Your task to perform on an android device: turn smart compose on in the gmail app Image 0: 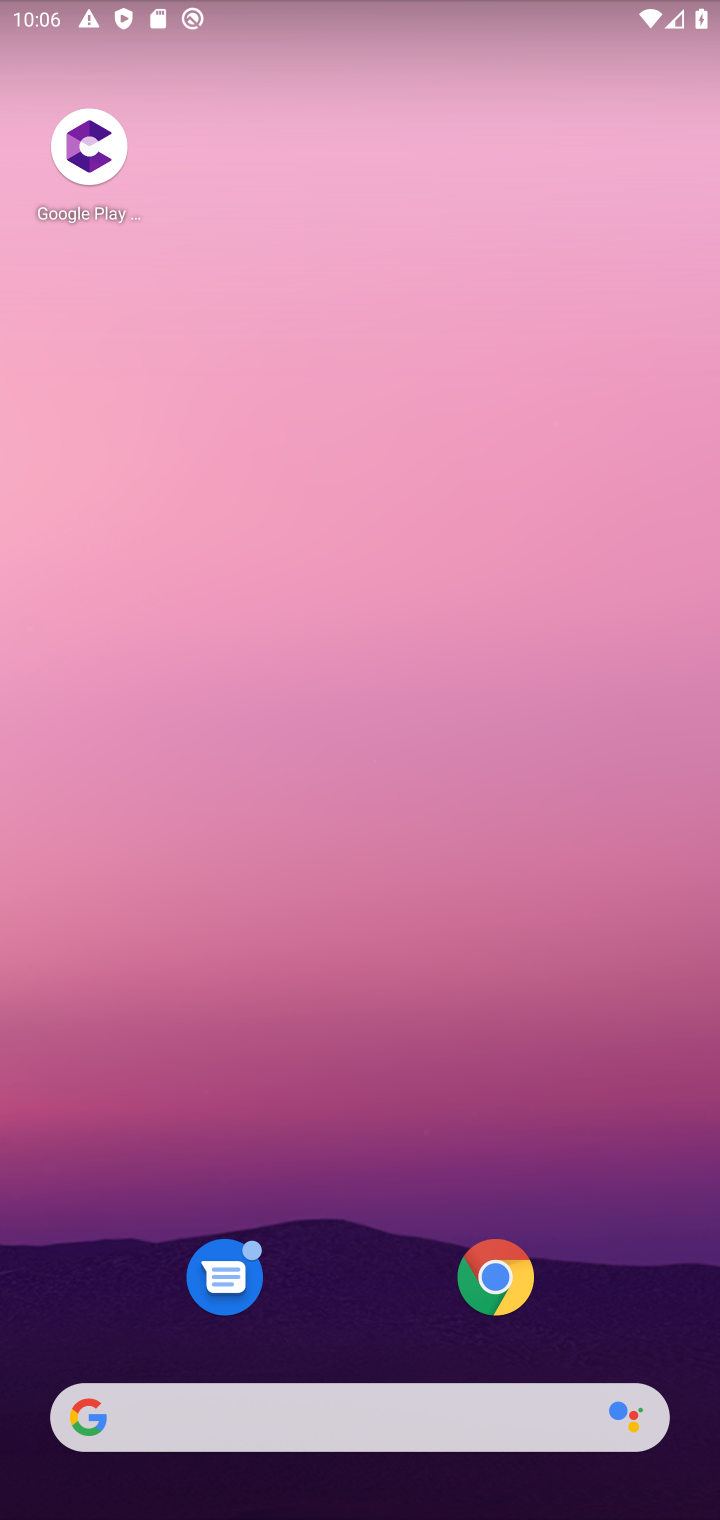
Step 0: drag from (406, 1050) to (435, 338)
Your task to perform on an android device: turn smart compose on in the gmail app Image 1: 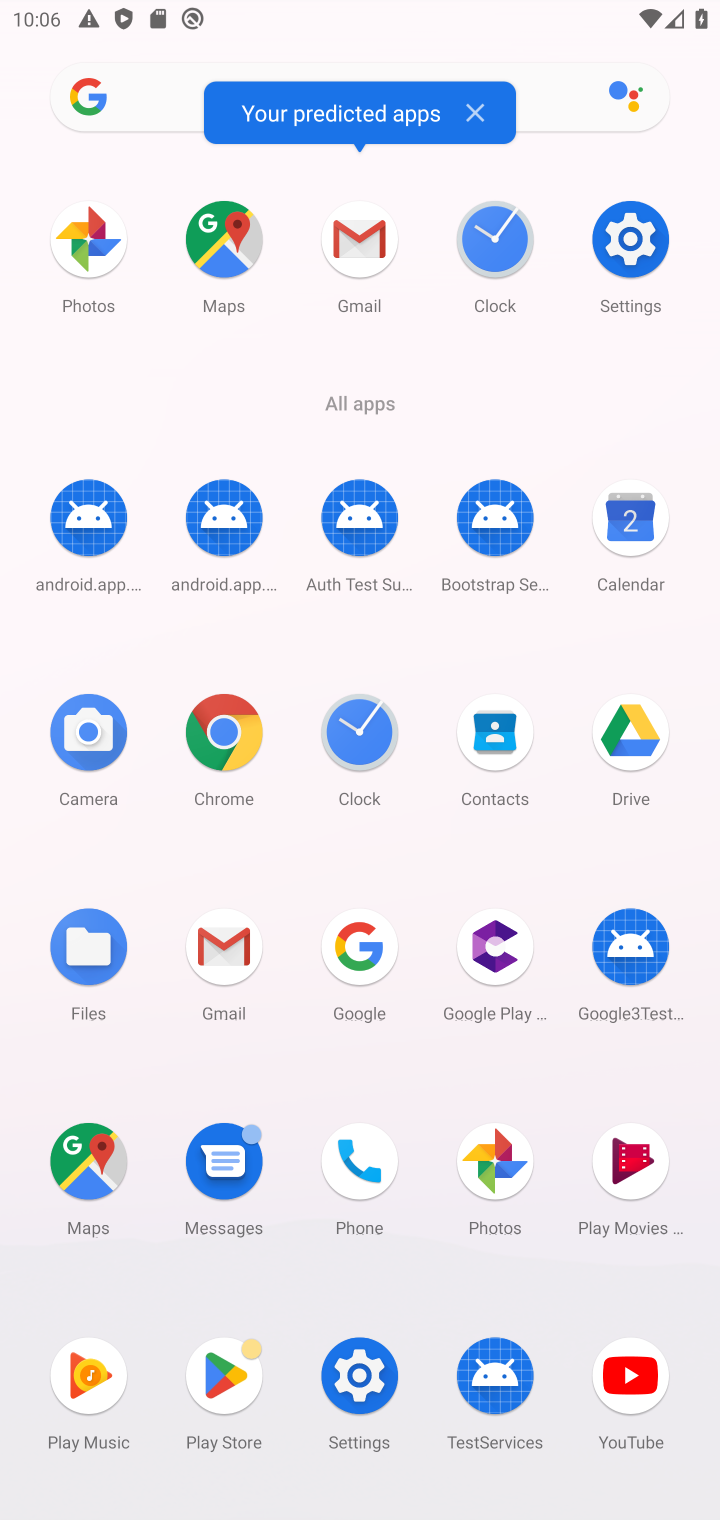
Step 1: click (382, 226)
Your task to perform on an android device: turn smart compose on in the gmail app Image 2: 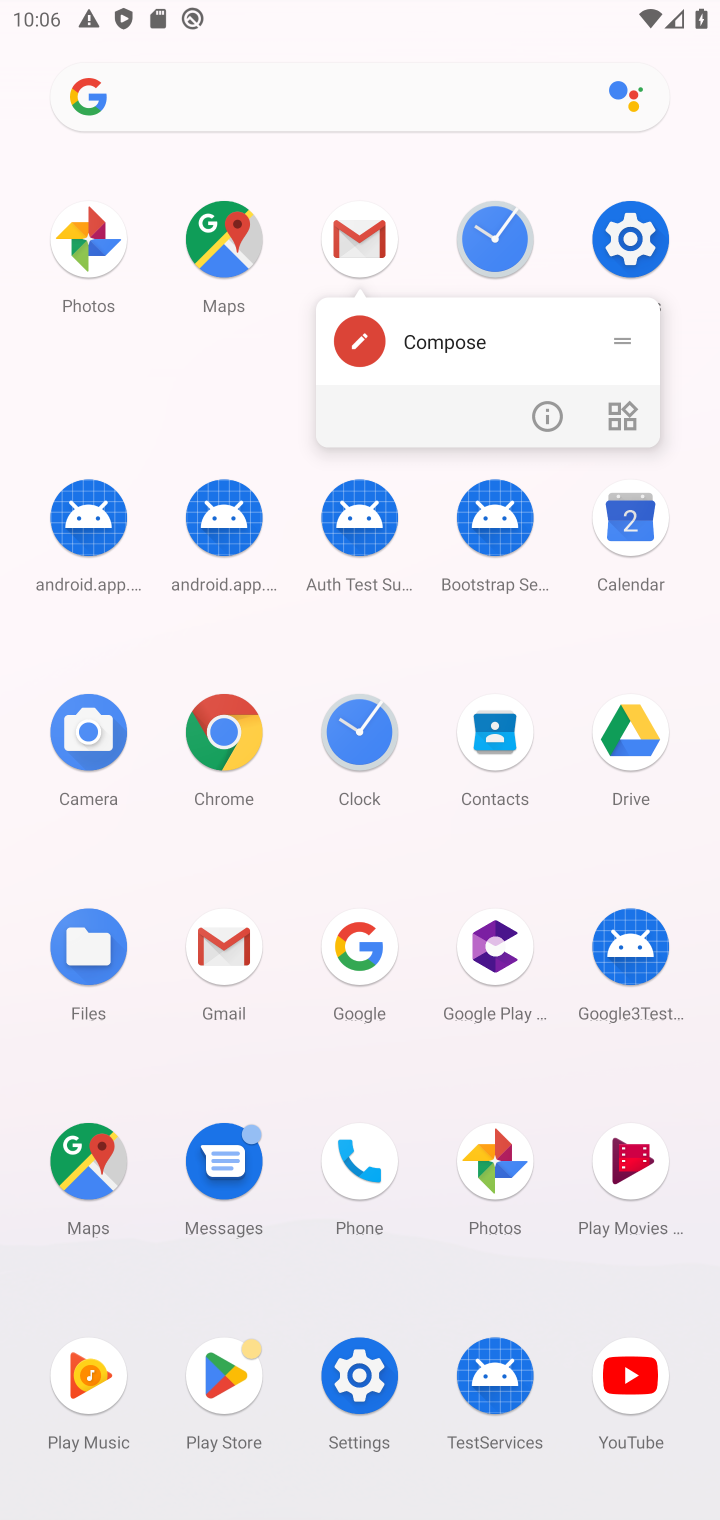
Step 2: click (364, 257)
Your task to perform on an android device: turn smart compose on in the gmail app Image 3: 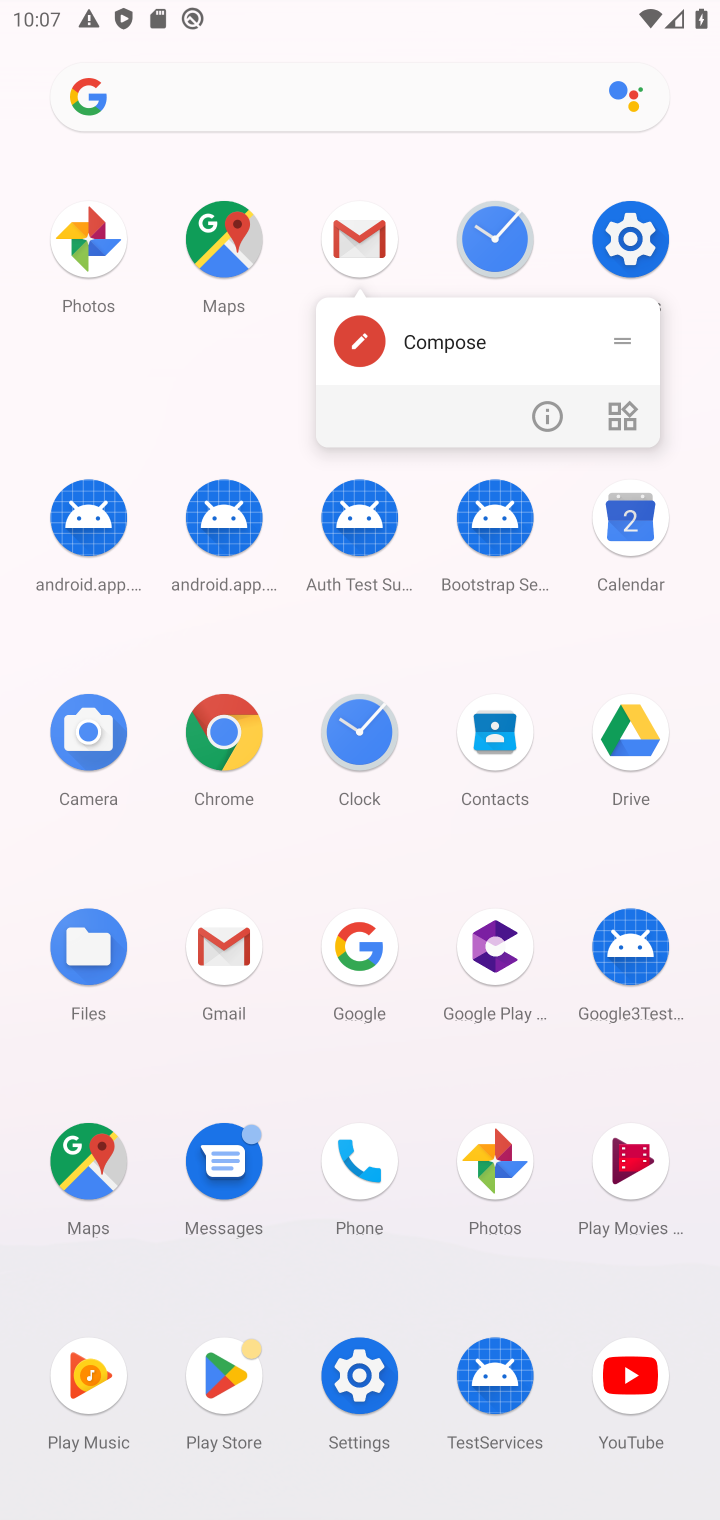
Step 3: click (364, 257)
Your task to perform on an android device: turn smart compose on in the gmail app Image 4: 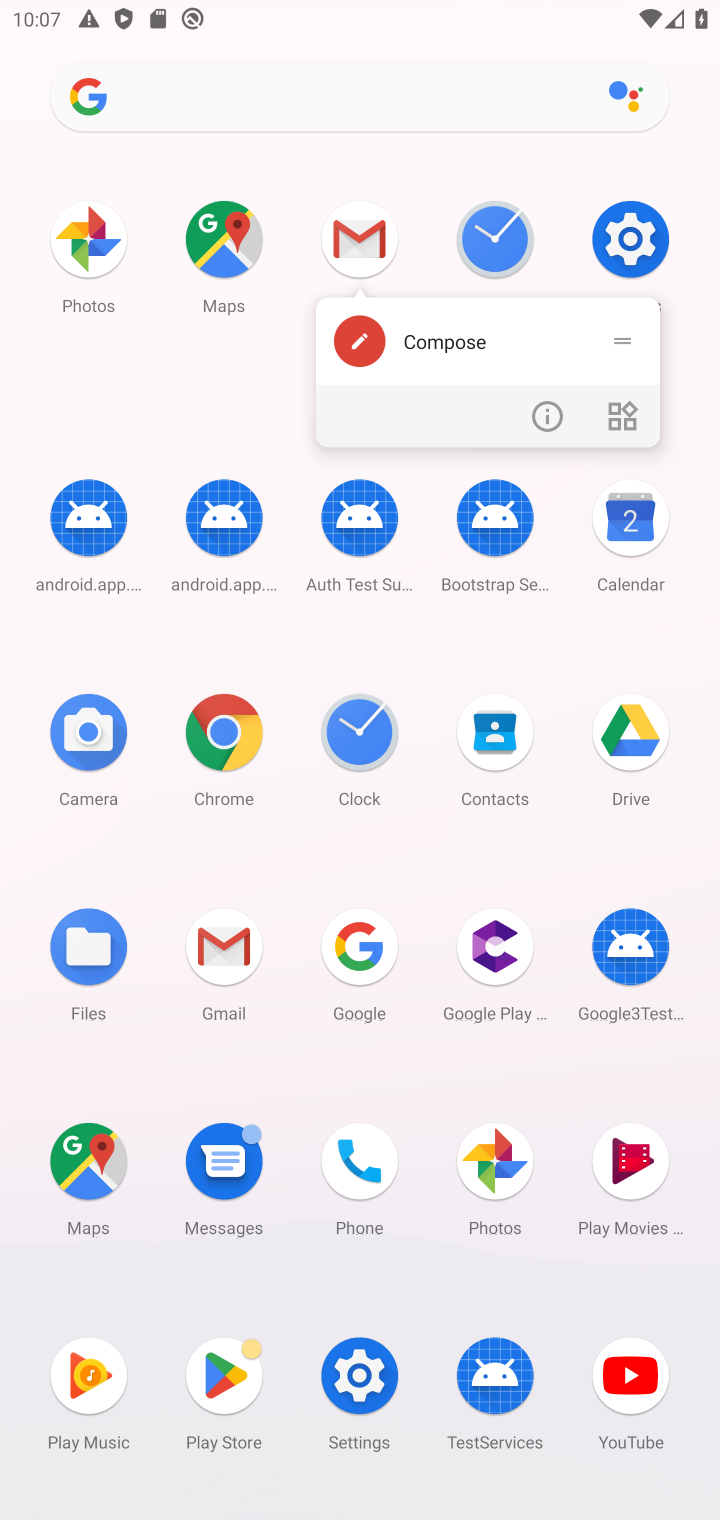
Step 4: click (235, 925)
Your task to perform on an android device: turn smart compose on in the gmail app Image 5: 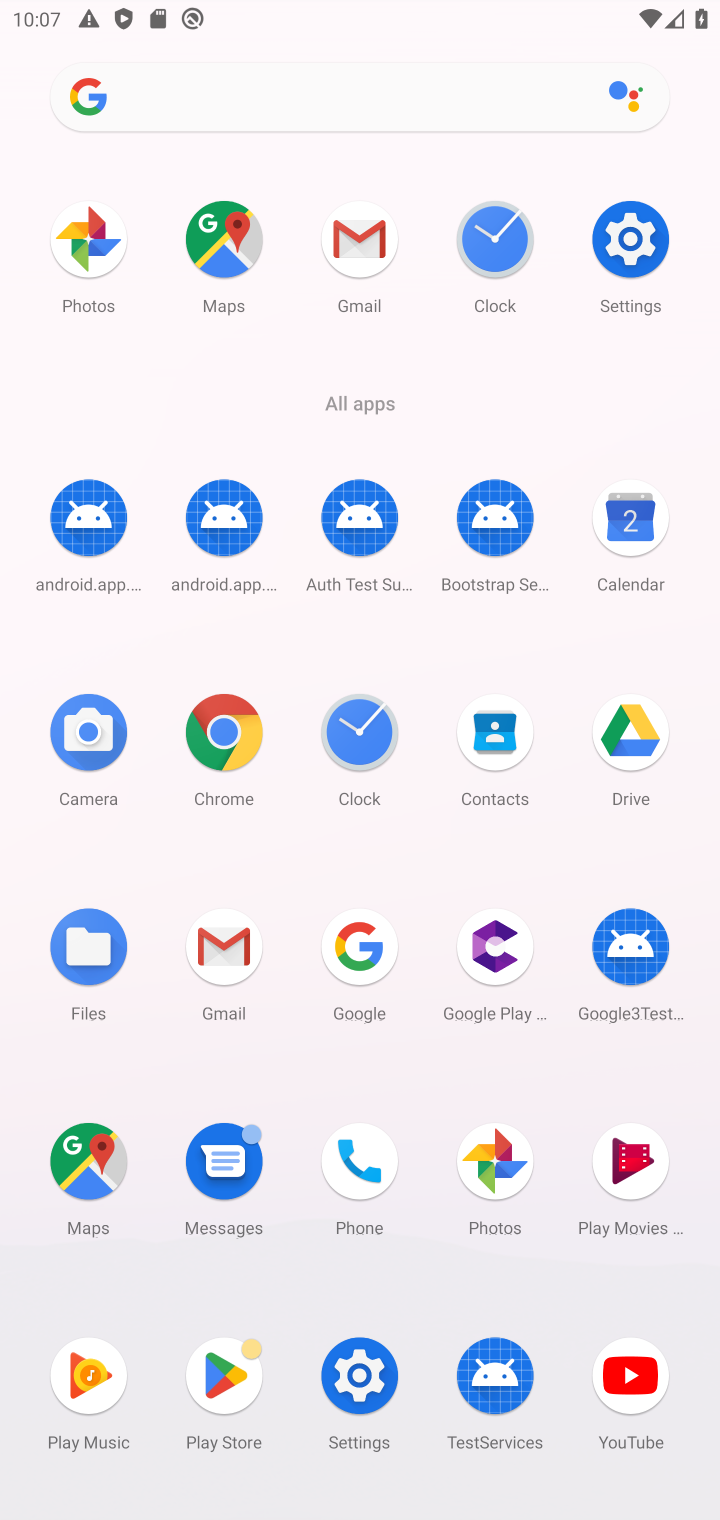
Step 5: click (231, 951)
Your task to perform on an android device: turn smart compose on in the gmail app Image 6: 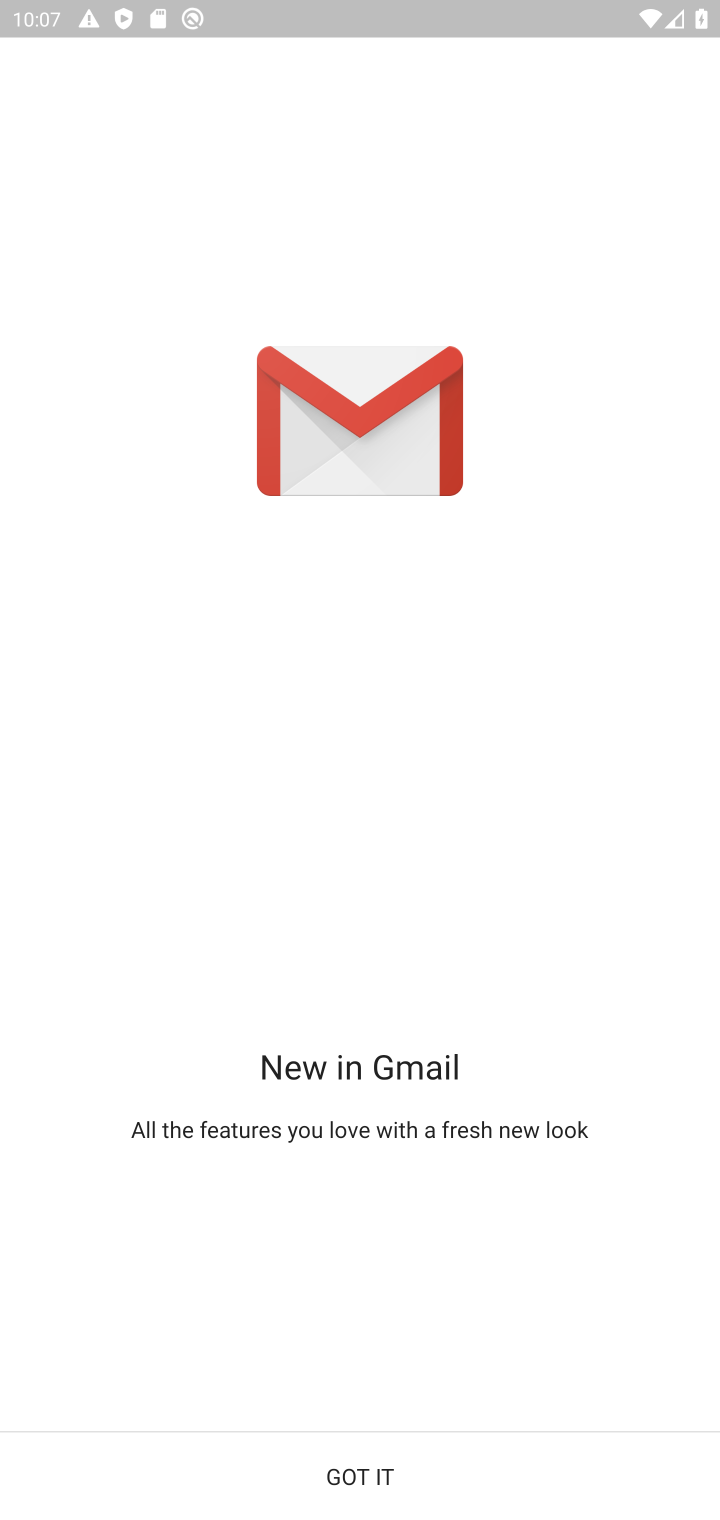
Step 6: click (350, 1480)
Your task to perform on an android device: turn smart compose on in the gmail app Image 7: 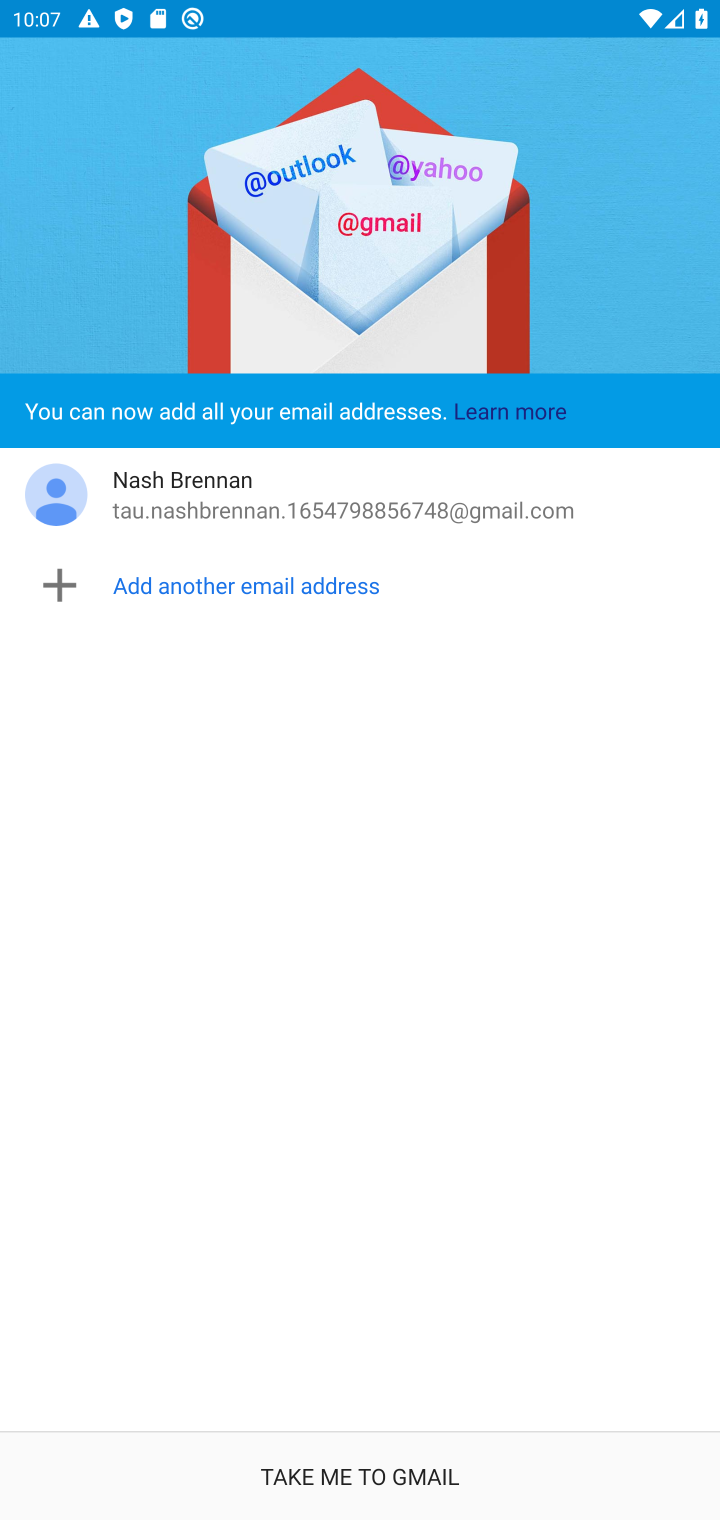
Step 7: click (363, 1482)
Your task to perform on an android device: turn smart compose on in the gmail app Image 8: 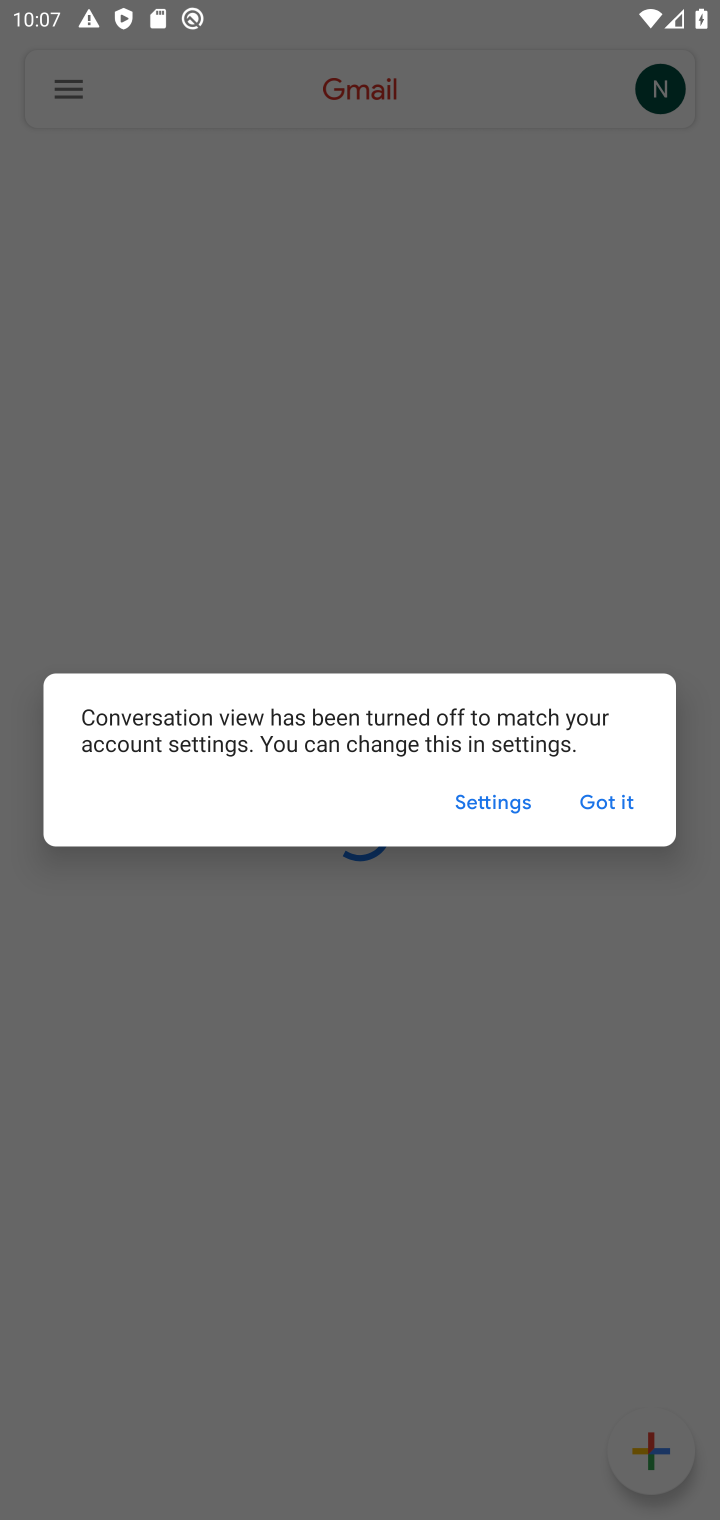
Step 8: click (638, 788)
Your task to perform on an android device: turn smart compose on in the gmail app Image 9: 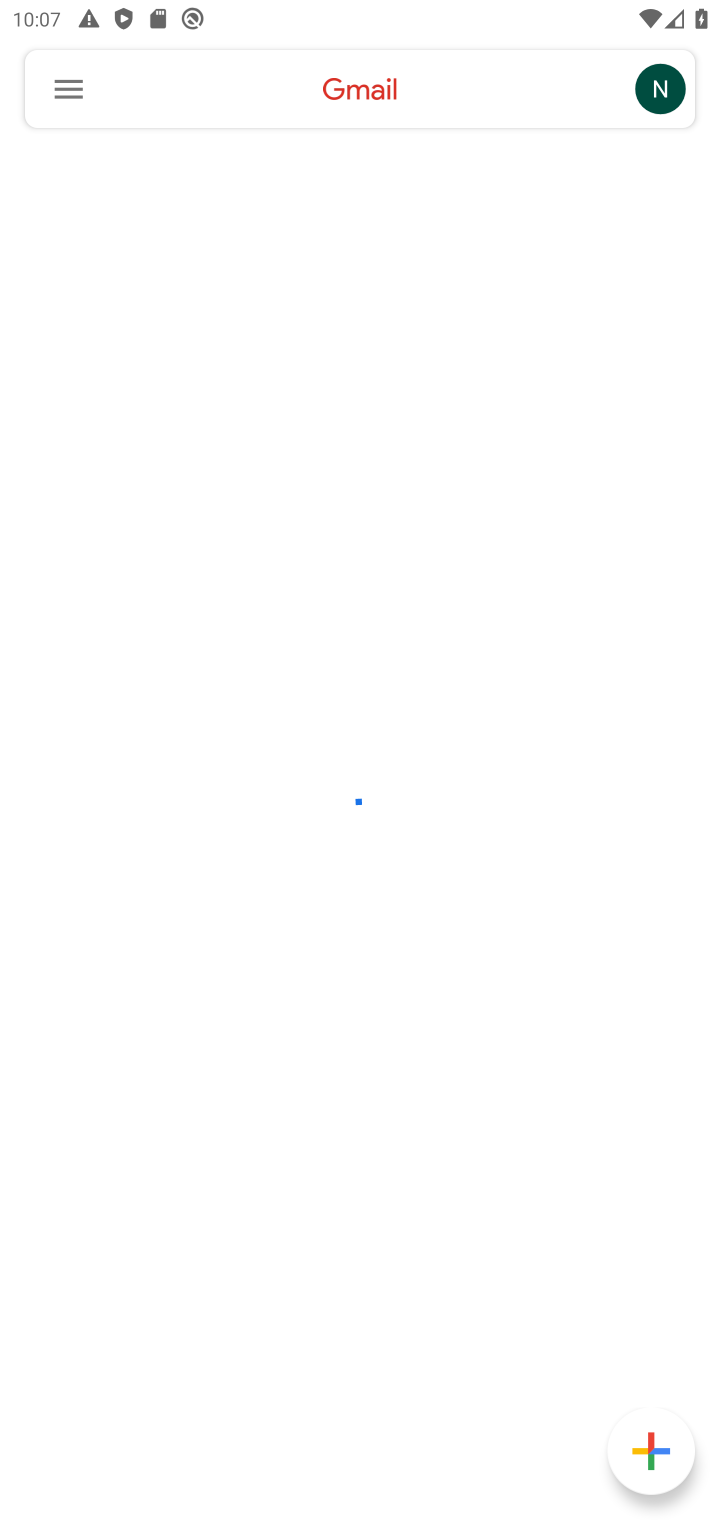
Step 9: click (72, 72)
Your task to perform on an android device: turn smart compose on in the gmail app Image 10: 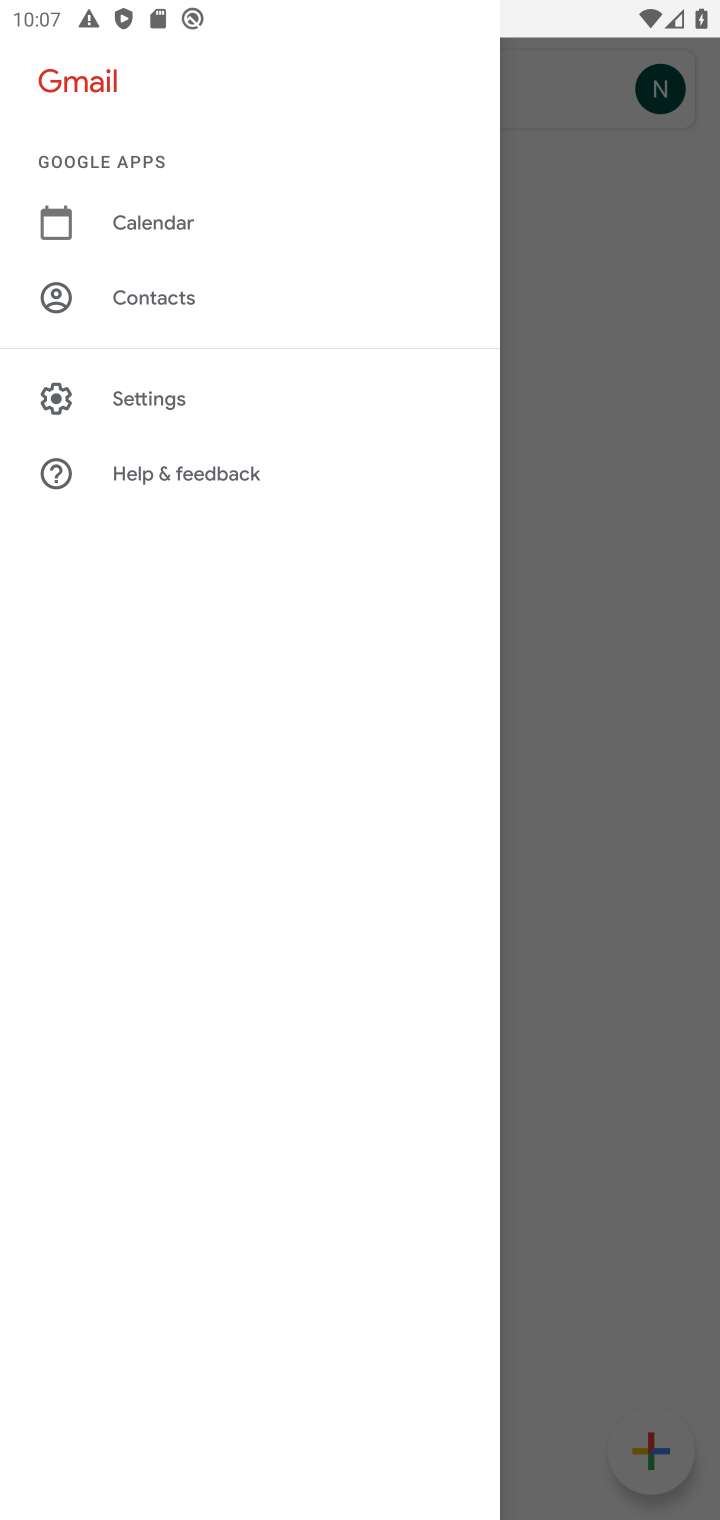
Step 10: click (135, 388)
Your task to perform on an android device: turn smart compose on in the gmail app Image 11: 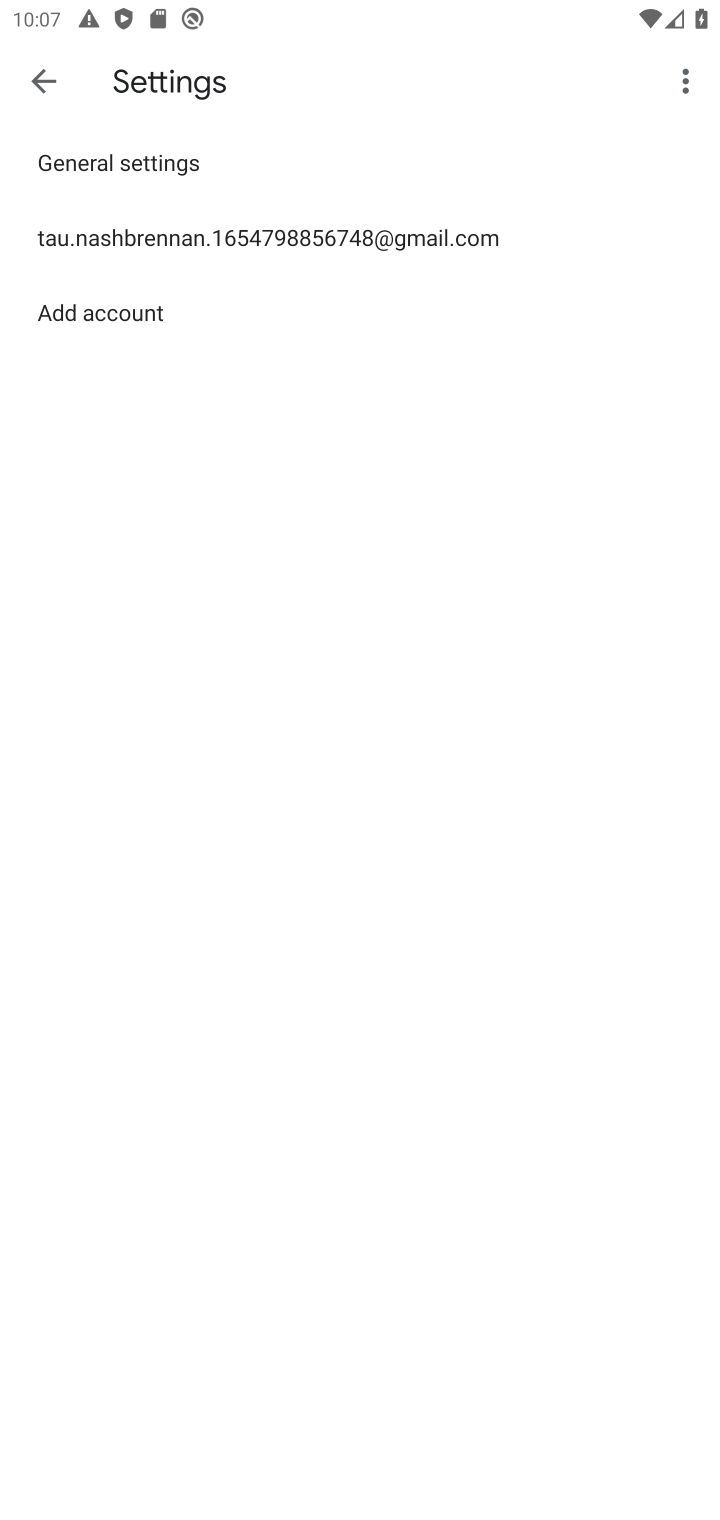
Step 11: click (174, 241)
Your task to perform on an android device: turn smart compose on in the gmail app Image 12: 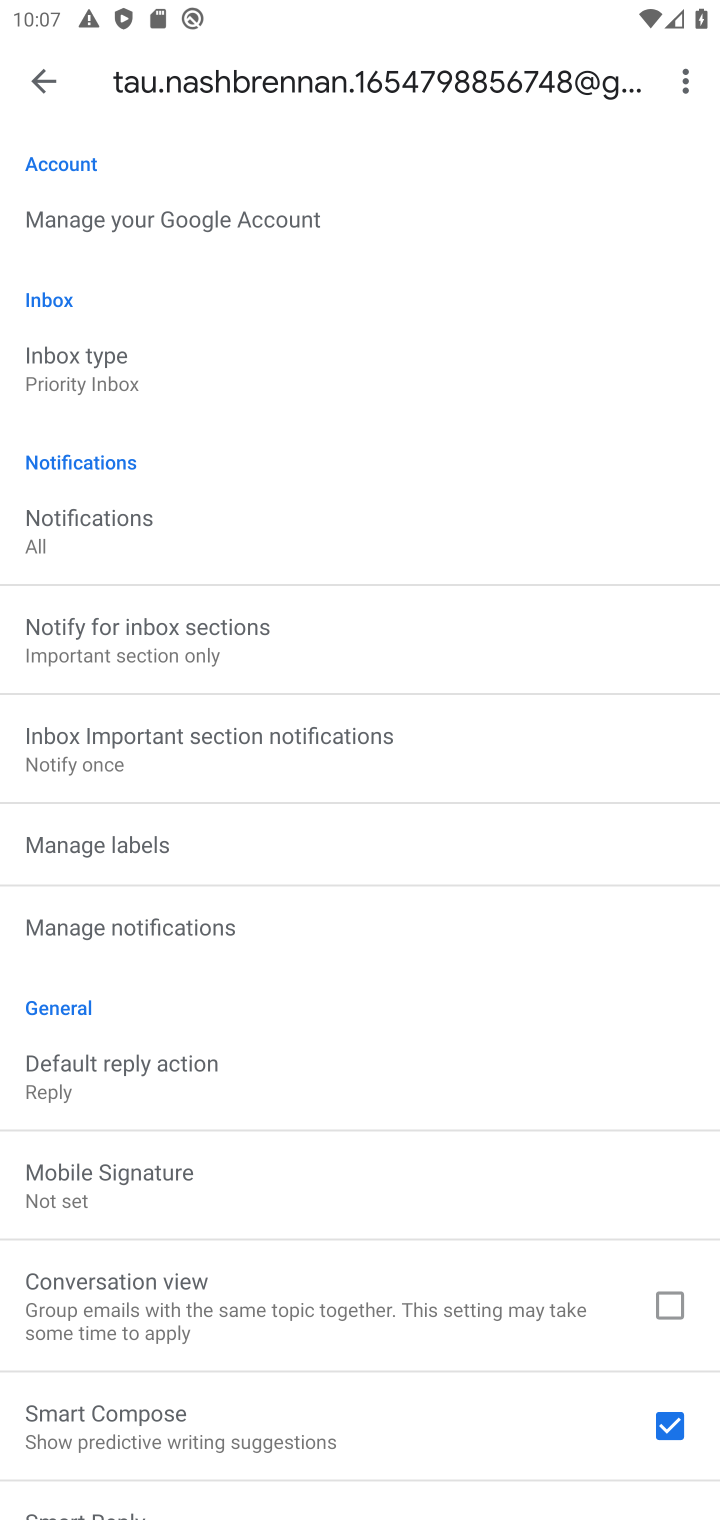
Step 12: task complete